Your task to perform on an android device: change keyboard looks Image 0: 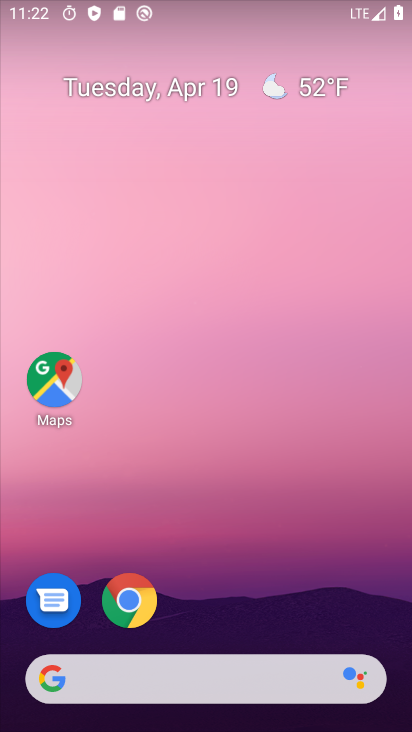
Step 0: drag from (185, 630) to (159, 45)
Your task to perform on an android device: change keyboard looks Image 1: 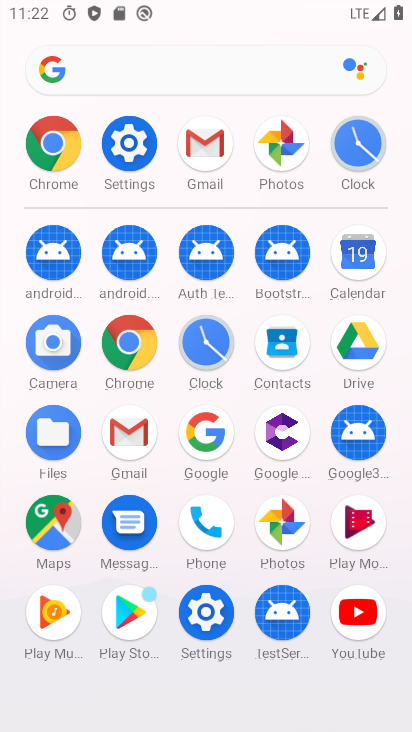
Step 1: click (126, 161)
Your task to perform on an android device: change keyboard looks Image 2: 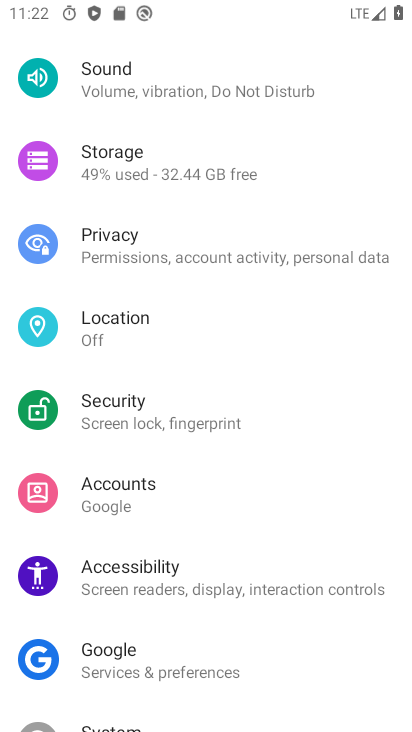
Step 2: drag from (158, 639) to (133, 159)
Your task to perform on an android device: change keyboard looks Image 3: 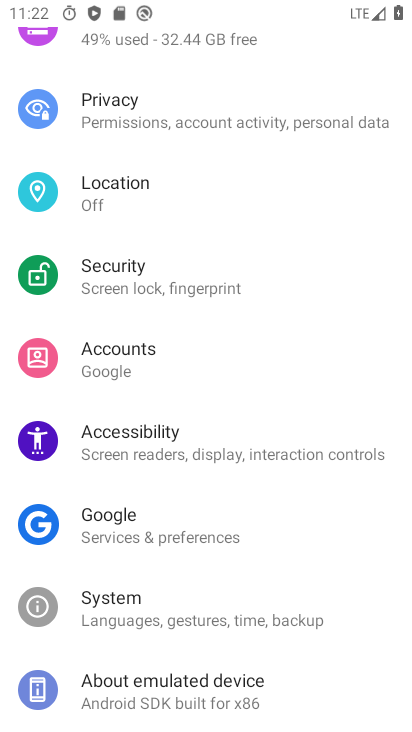
Step 3: click (133, 611)
Your task to perform on an android device: change keyboard looks Image 4: 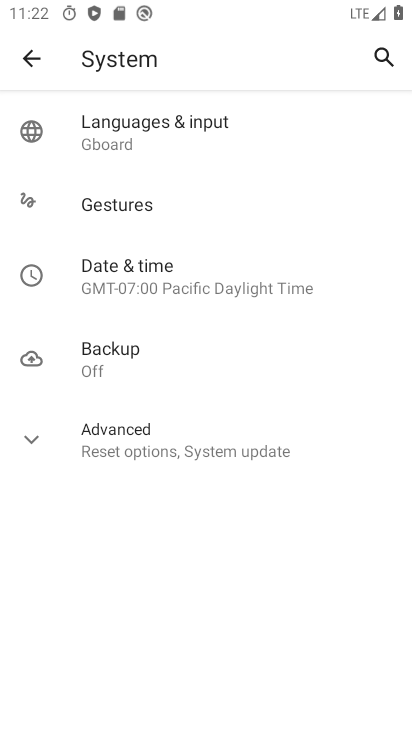
Step 4: click (176, 111)
Your task to perform on an android device: change keyboard looks Image 5: 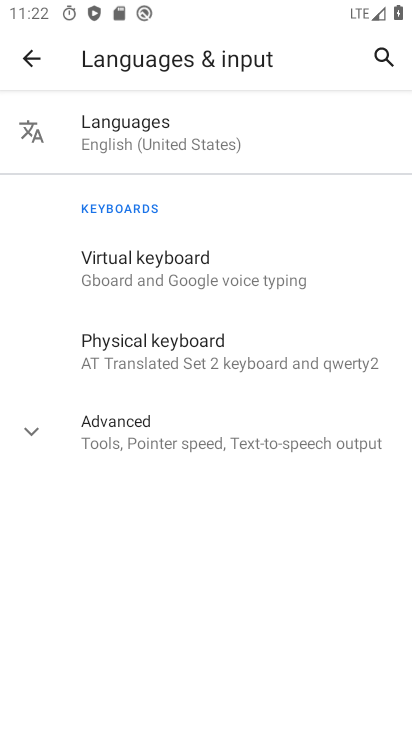
Step 5: click (172, 289)
Your task to perform on an android device: change keyboard looks Image 6: 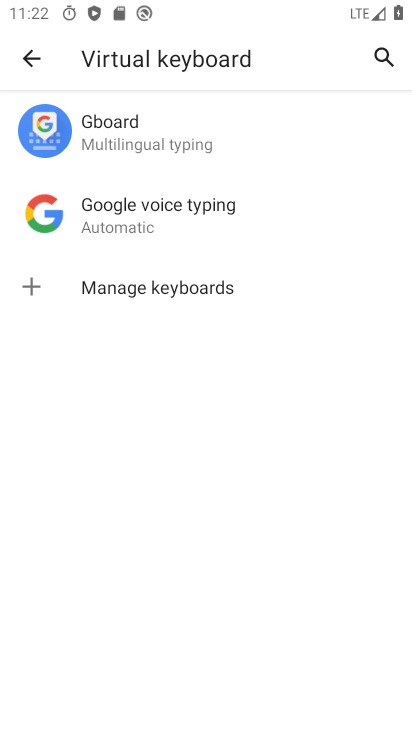
Step 6: click (83, 125)
Your task to perform on an android device: change keyboard looks Image 7: 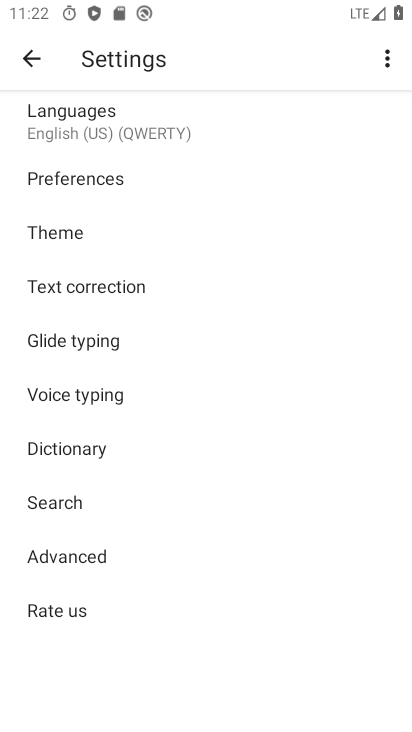
Step 7: click (77, 230)
Your task to perform on an android device: change keyboard looks Image 8: 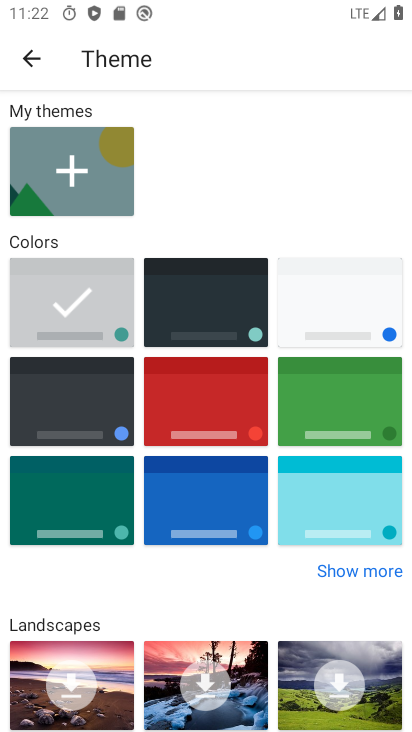
Step 8: click (214, 411)
Your task to perform on an android device: change keyboard looks Image 9: 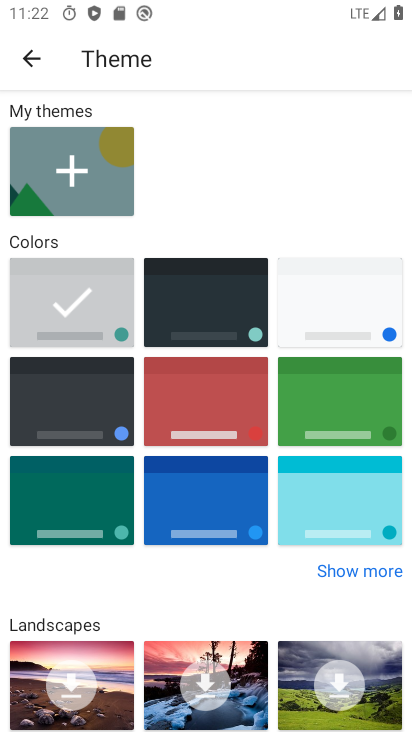
Step 9: click (213, 411)
Your task to perform on an android device: change keyboard looks Image 10: 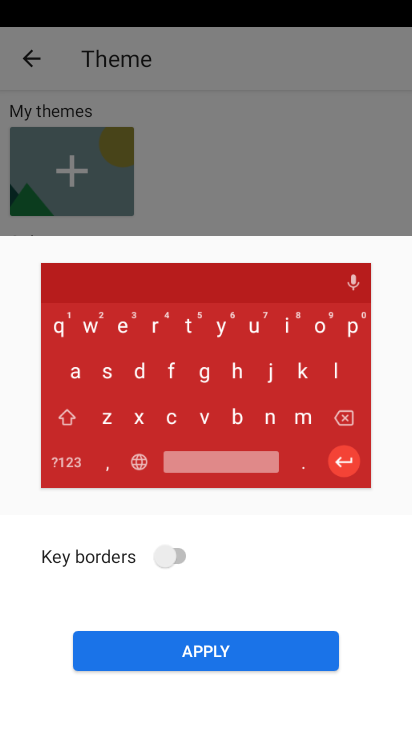
Step 10: click (242, 662)
Your task to perform on an android device: change keyboard looks Image 11: 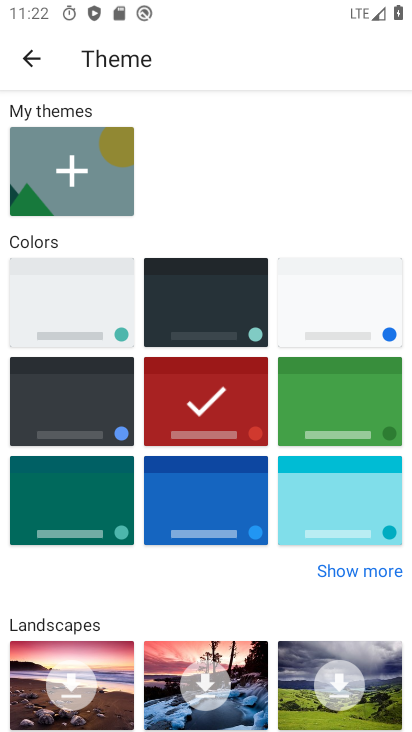
Step 11: task complete